Your task to perform on an android device: uninstall "Fetch Rewards" Image 0: 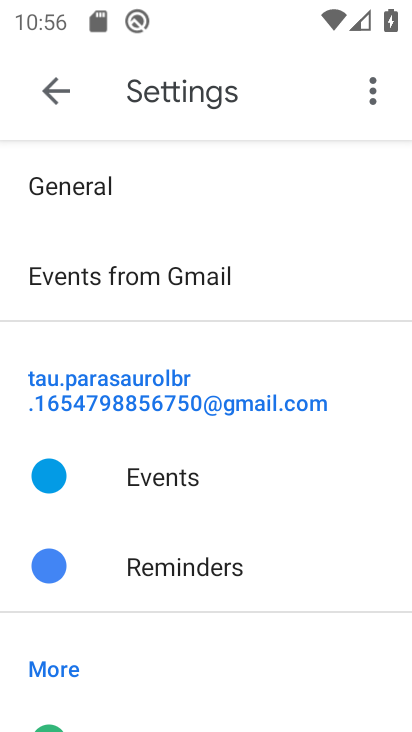
Step 0: press home button
Your task to perform on an android device: uninstall "Fetch Rewards" Image 1: 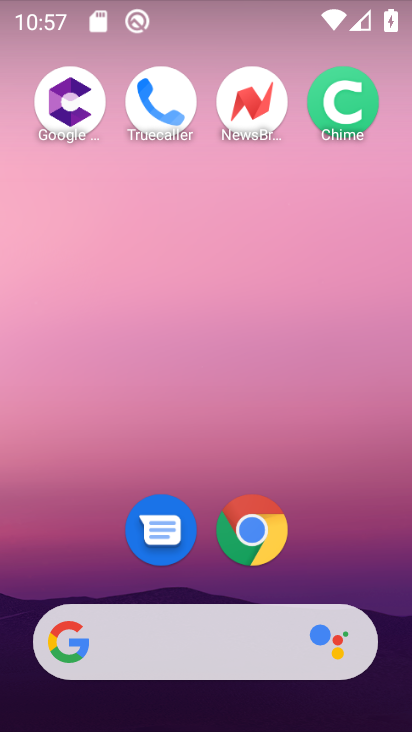
Step 1: drag from (151, 619) to (259, 37)
Your task to perform on an android device: uninstall "Fetch Rewards" Image 2: 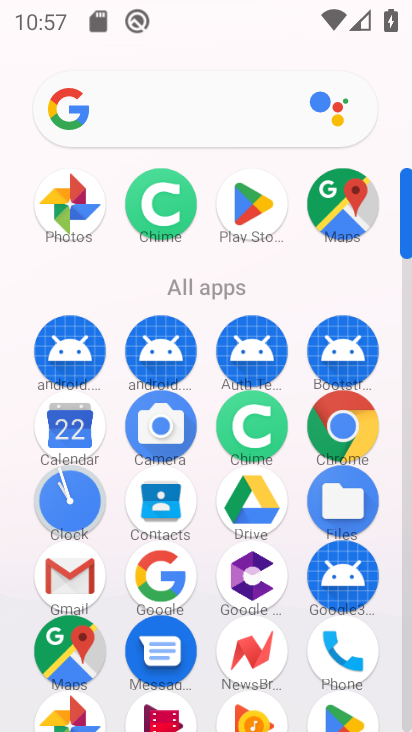
Step 2: click (221, 109)
Your task to perform on an android device: uninstall "Fetch Rewards" Image 3: 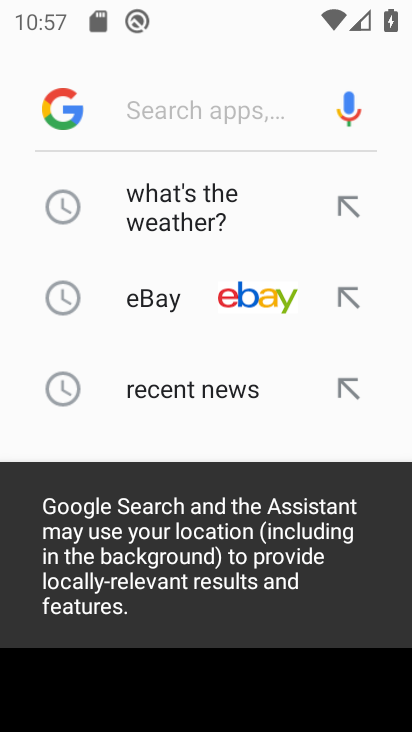
Step 3: press back button
Your task to perform on an android device: uninstall "Fetch Rewards" Image 4: 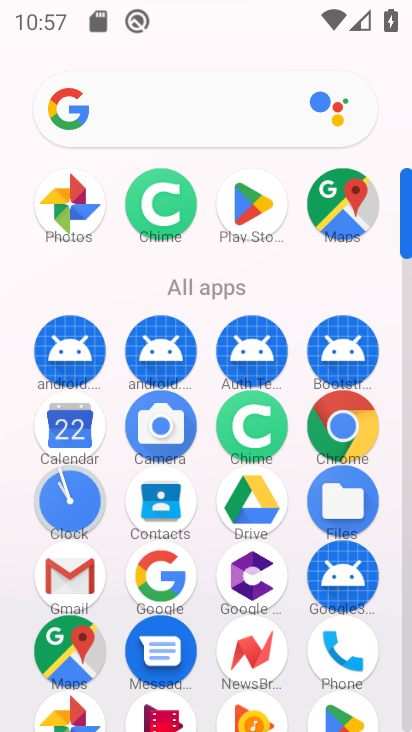
Step 4: click (245, 200)
Your task to perform on an android device: uninstall "Fetch Rewards" Image 5: 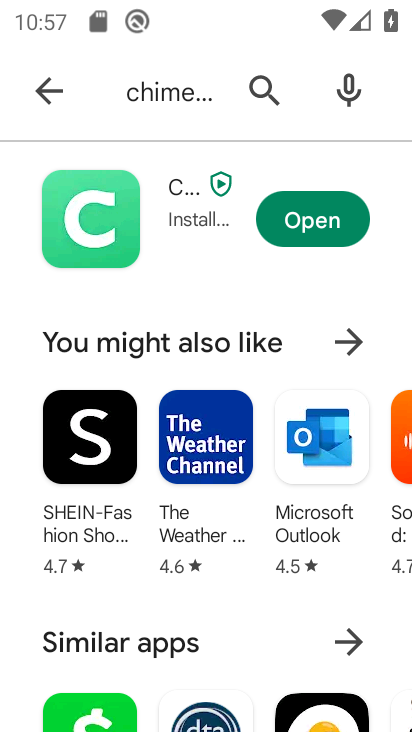
Step 5: press back button
Your task to perform on an android device: uninstall "Fetch Rewards" Image 6: 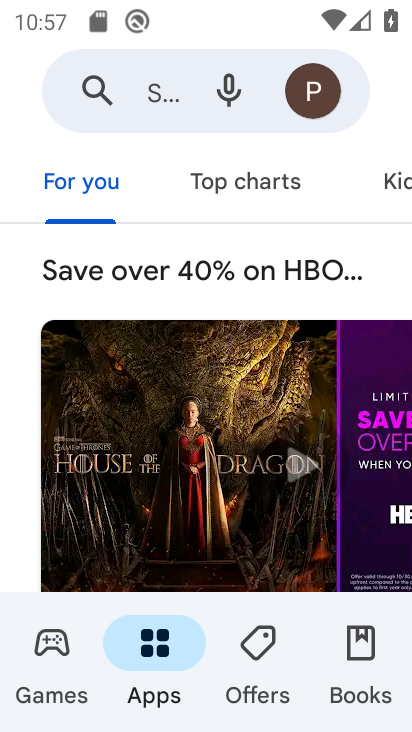
Step 6: click (177, 93)
Your task to perform on an android device: uninstall "Fetch Rewards" Image 7: 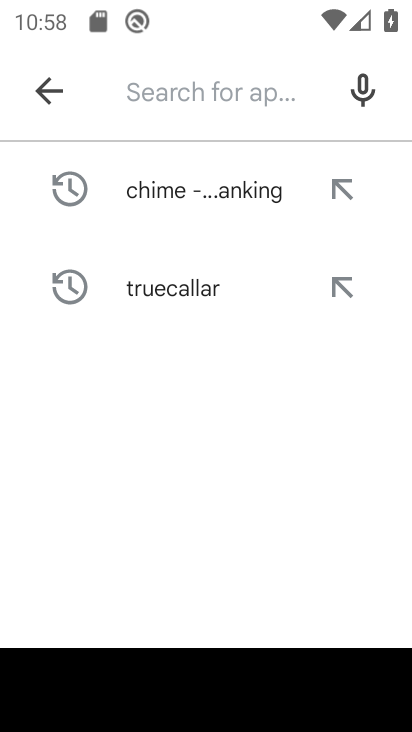
Step 7: type "Fetch Rewards"
Your task to perform on an android device: uninstall "Fetch Rewards" Image 8: 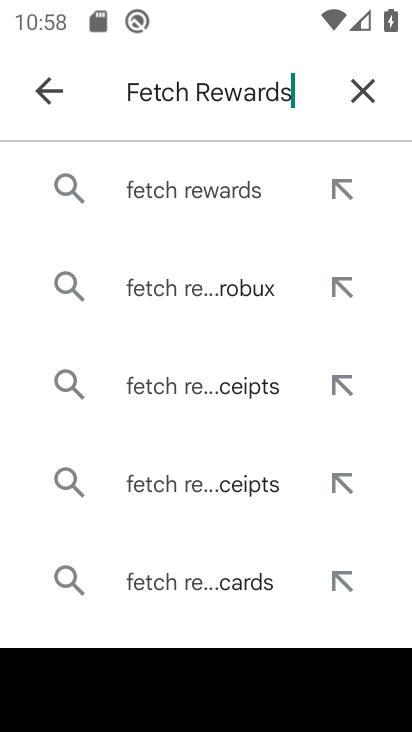
Step 8: click (207, 197)
Your task to perform on an android device: uninstall "Fetch Rewards" Image 9: 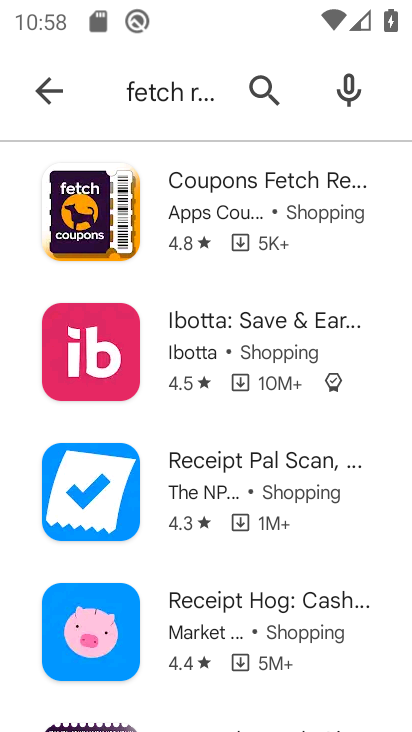
Step 9: task complete